Your task to perform on an android device: Go to Reddit.com Image 0: 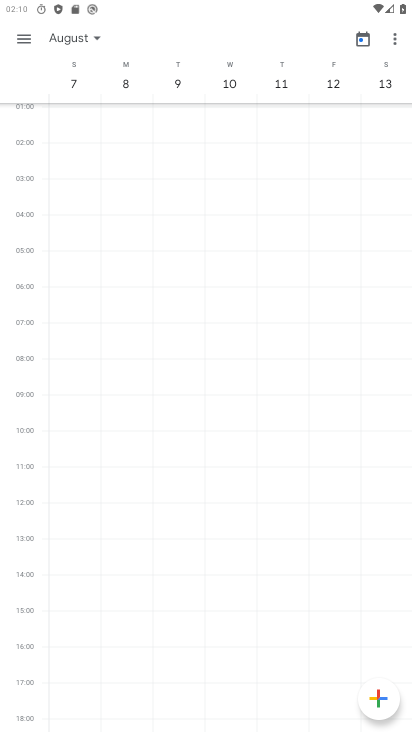
Step 0: press home button
Your task to perform on an android device: Go to Reddit.com Image 1: 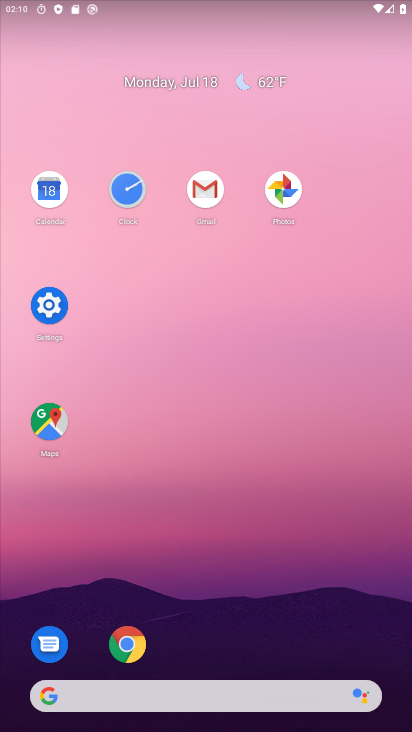
Step 1: click (131, 637)
Your task to perform on an android device: Go to Reddit.com Image 2: 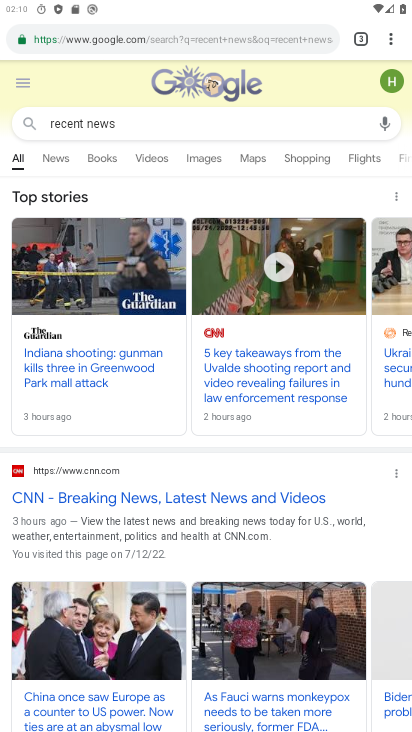
Step 2: click (361, 31)
Your task to perform on an android device: Go to Reddit.com Image 3: 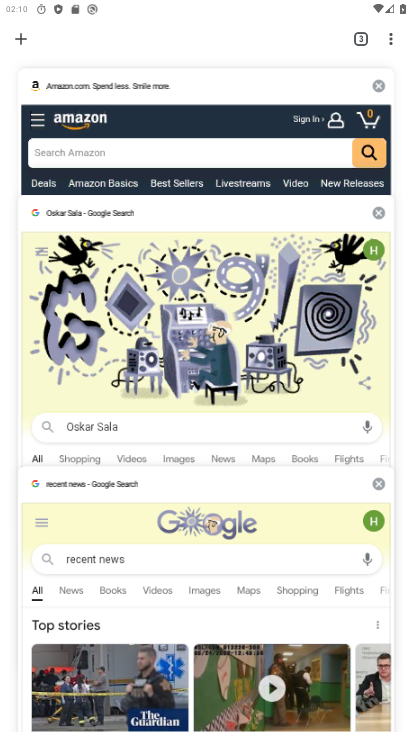
Step 3: click (22, 33)
Your task to perform on an android device: Go to Reddit.com Image 4: 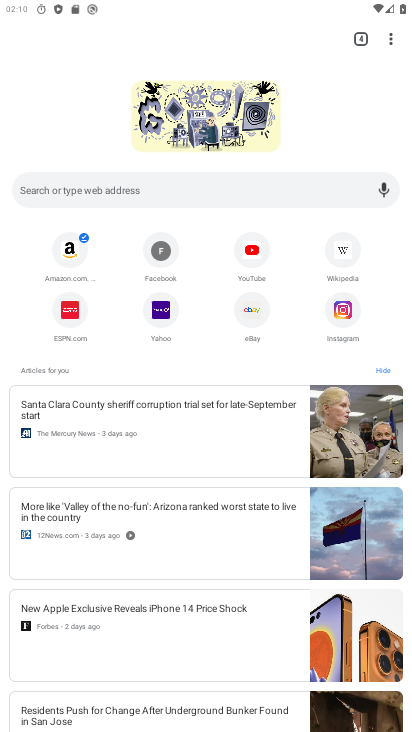
Step 4: click (300, 187)
Your task to perform on an android device: Go to Reddit.com Image 5: 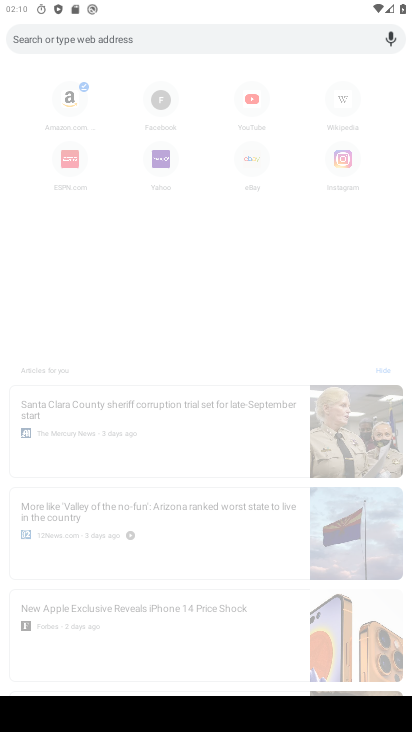
Step 5: type "reddit"
Your task to perform on an android device: Go to Reddit.com Image 6: 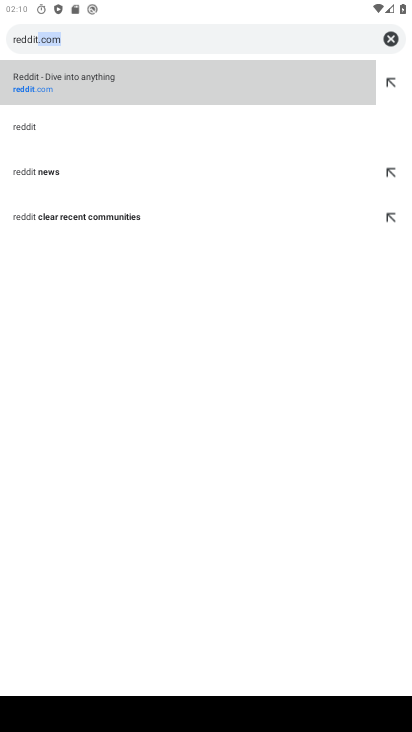
Step 6: click (62, 87)
Your task to perform on an android device: Go to Reddit.com Image 7: 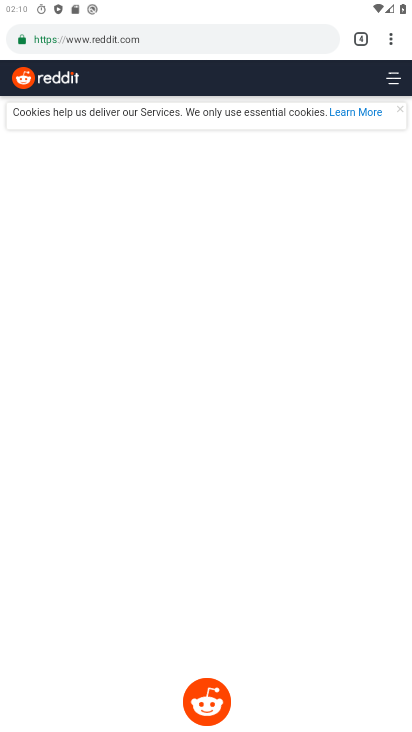
Step 7: task complete